Your task to perform on an android device: make emails show in primary in the gmail app Image 0: 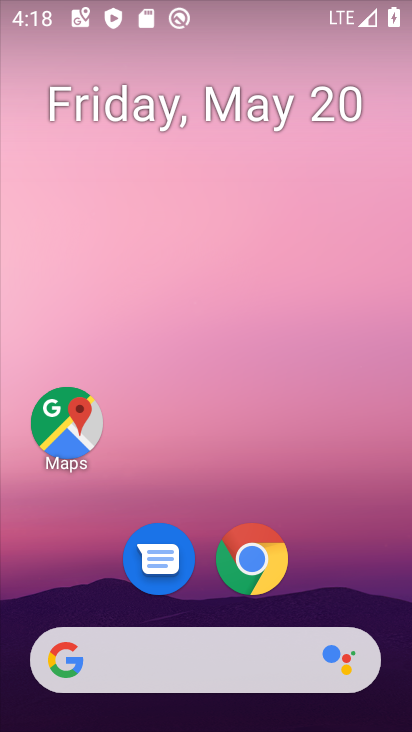
Step 0: drag from (238, 625) to (240, 217)
Your task to perform on an android device: make emails show in primary in the gmail app Image 1: 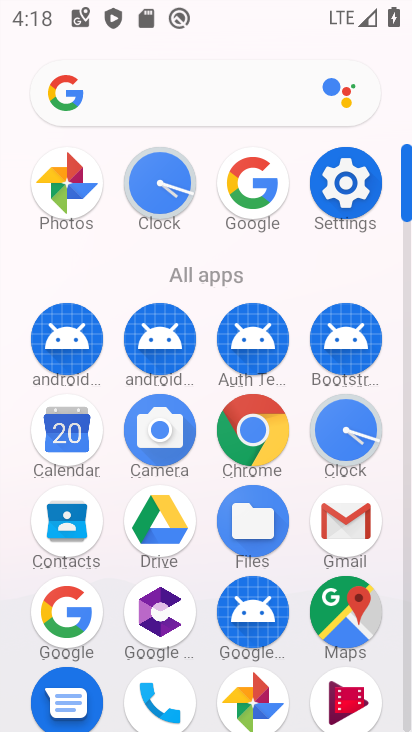
Step 1: click (345, 526)
Your task to perform on an android device: make emails show in primary in the gmail app Image 2: 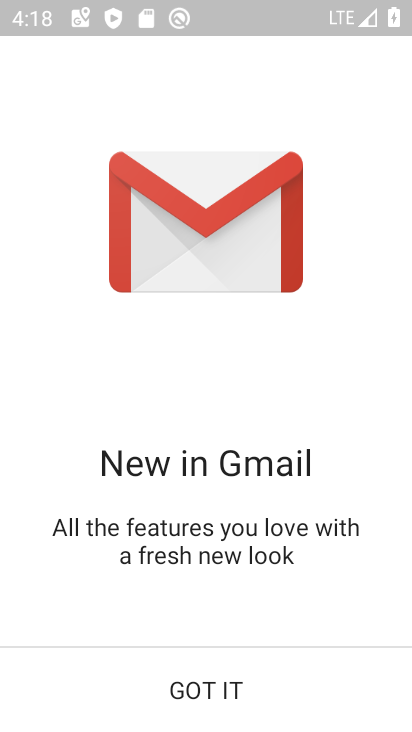
Step 2: click (201, 687)
Your task to perform on an android device: make emails show in primary in the gmail app Image 3: 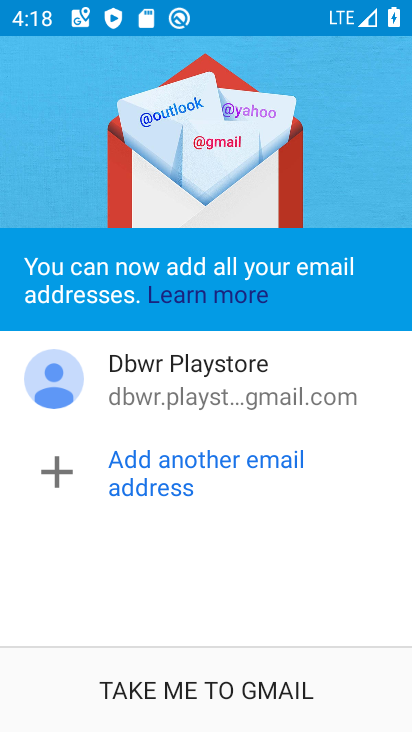
Step 3: click (201, 687)
Your task to perform on an android device: make emails show in primary in the gmail app Image 4: 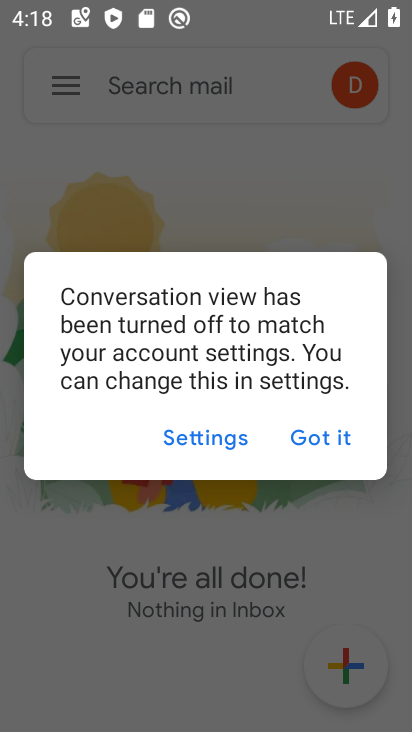
Step 4: click (319, 442)
Your task to perform on an android device: make emails show in primary in the gmail app Image 5: 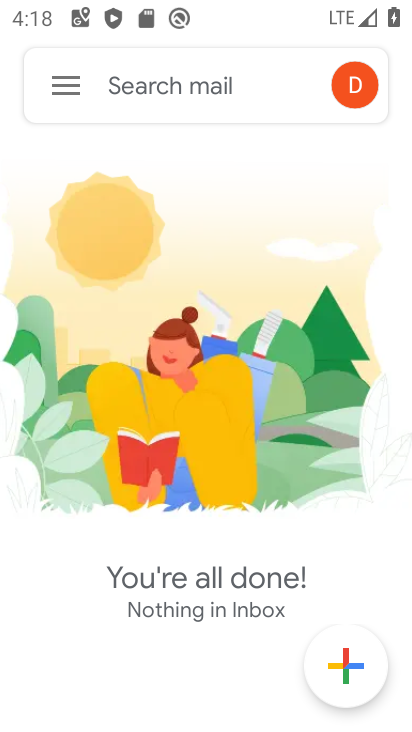
Step 5: click (68, 84)
Your task to perform on an android device: make emails show in primary in the gmail app Image 6: 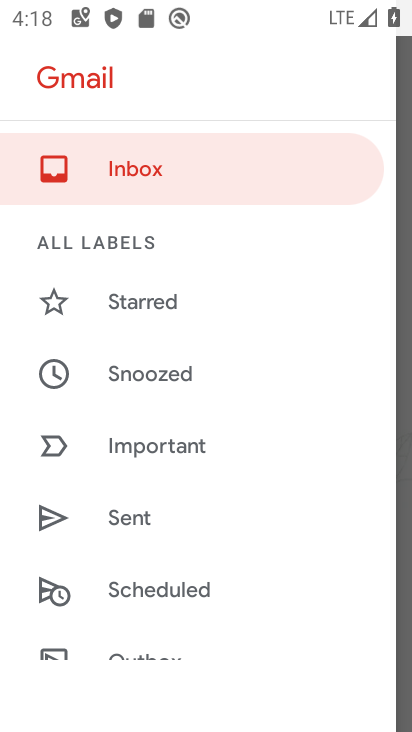
Step 6: drag from (145, 636) to (204, 233)
Your task to perform on an android device: make emails show in primary in the gmail app Image 7: 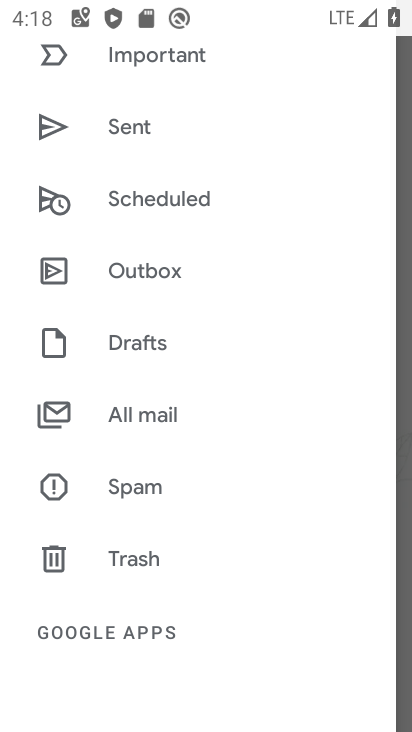
Step 7: drag from (149, 624) to (168, 251)
Your task to perform on an android device: make emails show in primary in the gmail app Image 8: 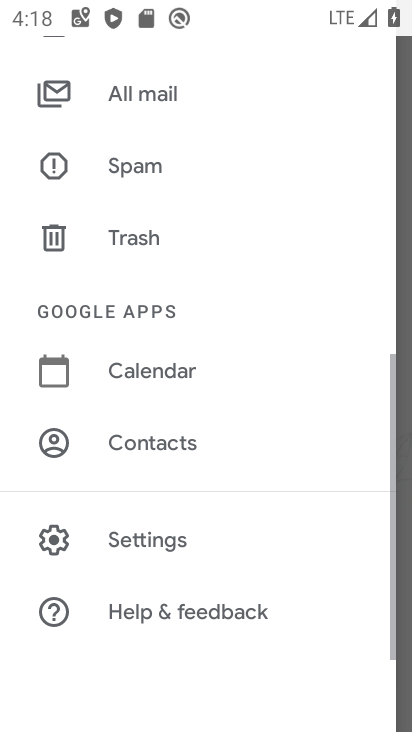
Step 8: click (173, 539)
Your task to perform on an android device: make emails show in primary in the gmail app Image 9: 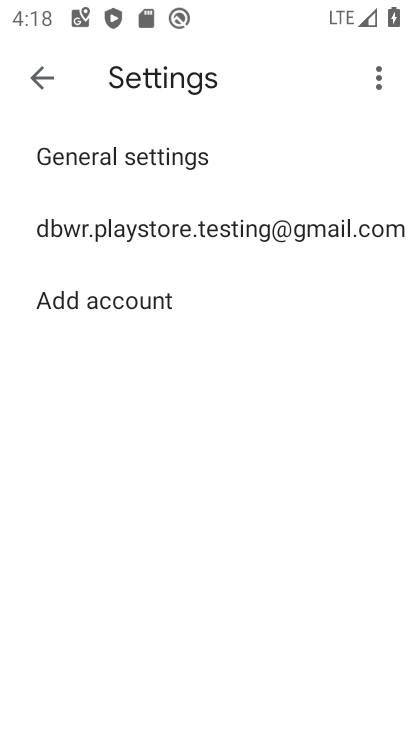
Step 9: click (121, 238)
Your task to perform on an android device: make emails show in primary in the gmail app Image 10: 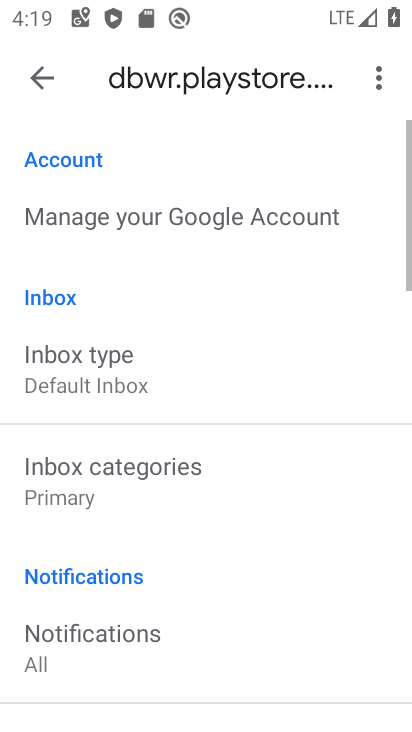
Step 10: click (63, 375)
Your task to perform on an android device: make emails show in primary in the gmail app Image 11: 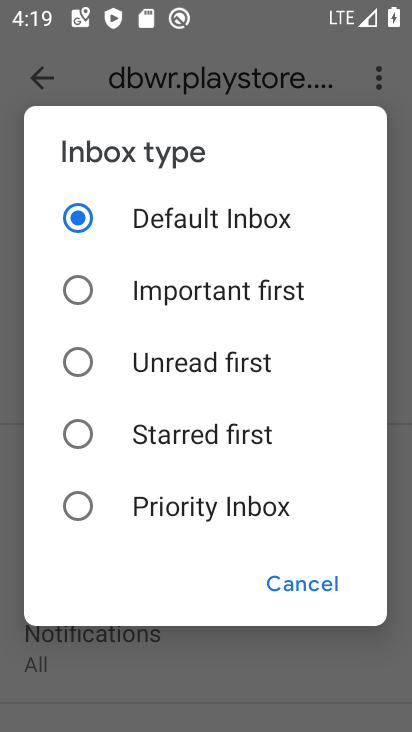
Step 11: click (299, 593)
Your task to perform on an android device: make emails show in primary in the gmail app Image 12: 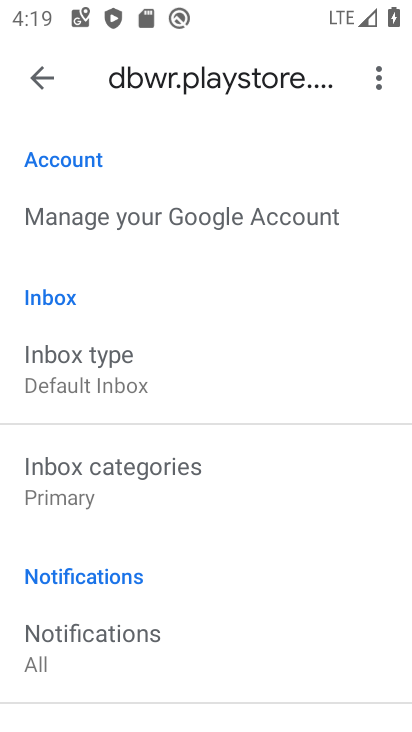
Step 12: task complete